Your task to perform on an android device: Search for the best coffee tables on Crate & Barrel Image 0: 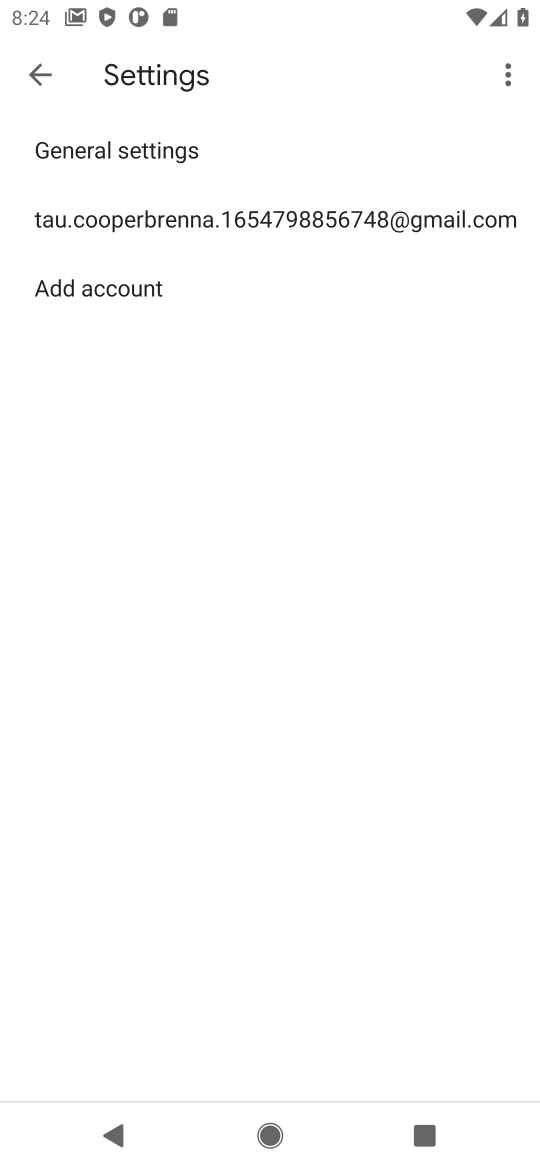
Step 0: press back button
Your task to perform on an android device: Search for the best coffee tables on Crate & Barrel Image 1: 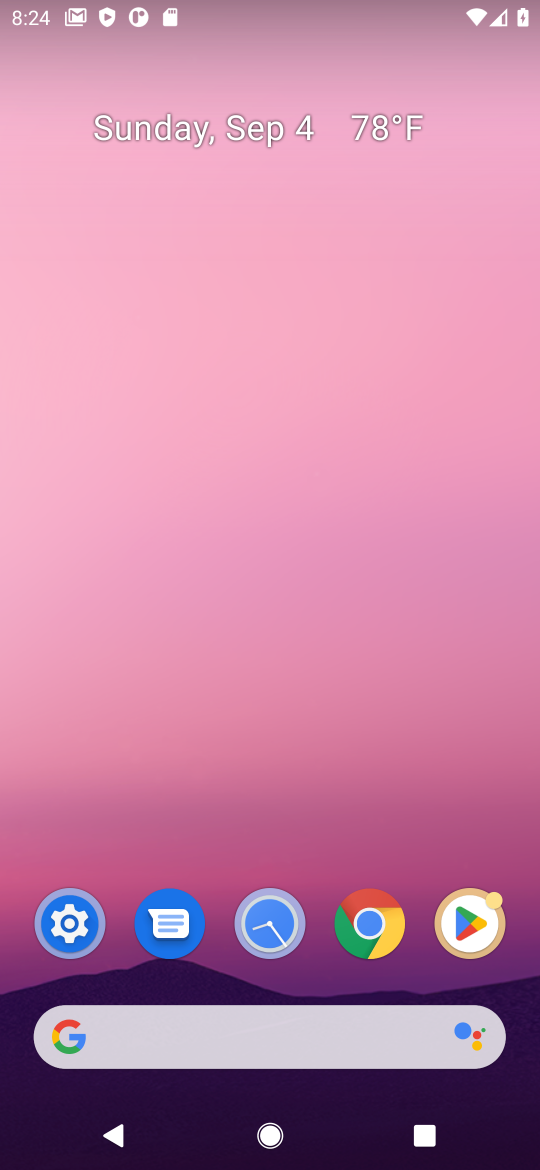
Step 1: click (376, 936)
Your task to perform on an android device: Search for the best coffee tables on Crate & Barrel Image 2: 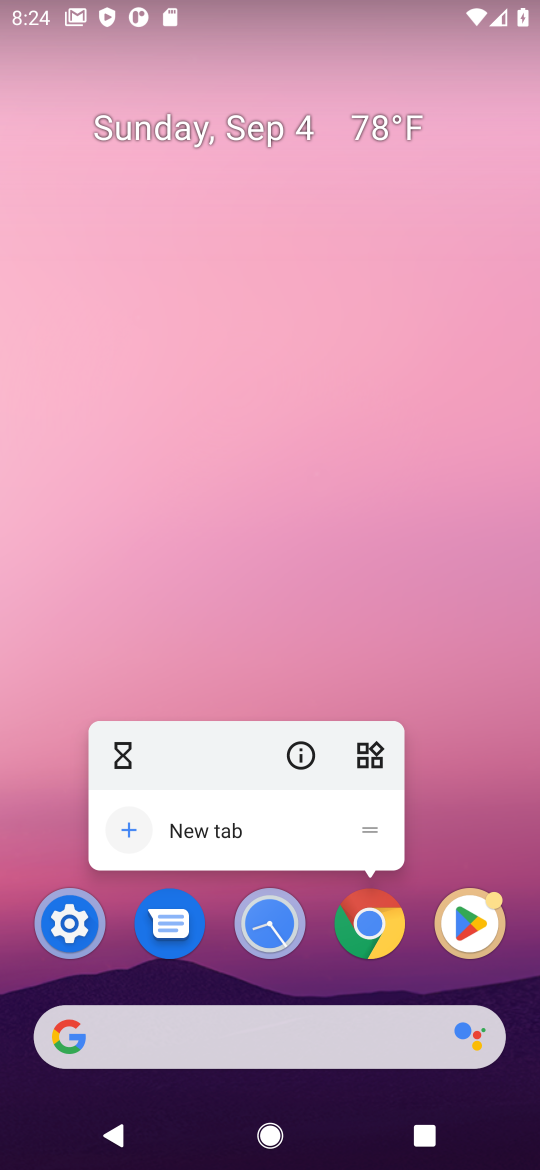
Step 2: click (366, 920)
Your task to perform on an android device: Search for the best coffee tables on Crate & Barrel Image 3: 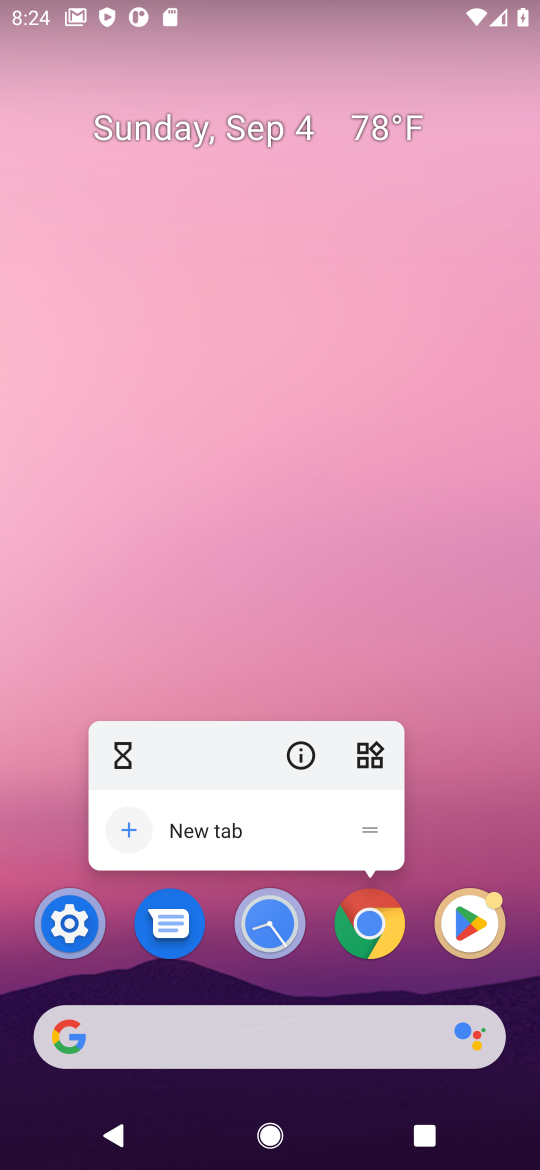
Step 3: click (374, 938)
Your task to perform on an android device: Search for the best coffee tables on Crate & Barrel Image 4: 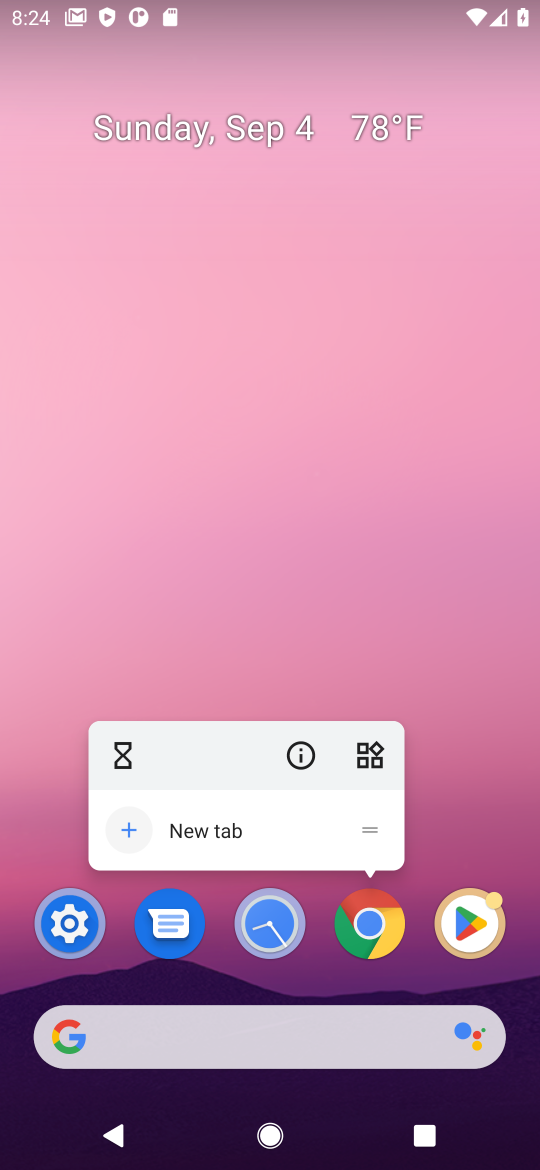
Step 4: click (374, 938)
Your task to perform on an android device: Search for the best coffee tables on Crate & Barrel Image 5: 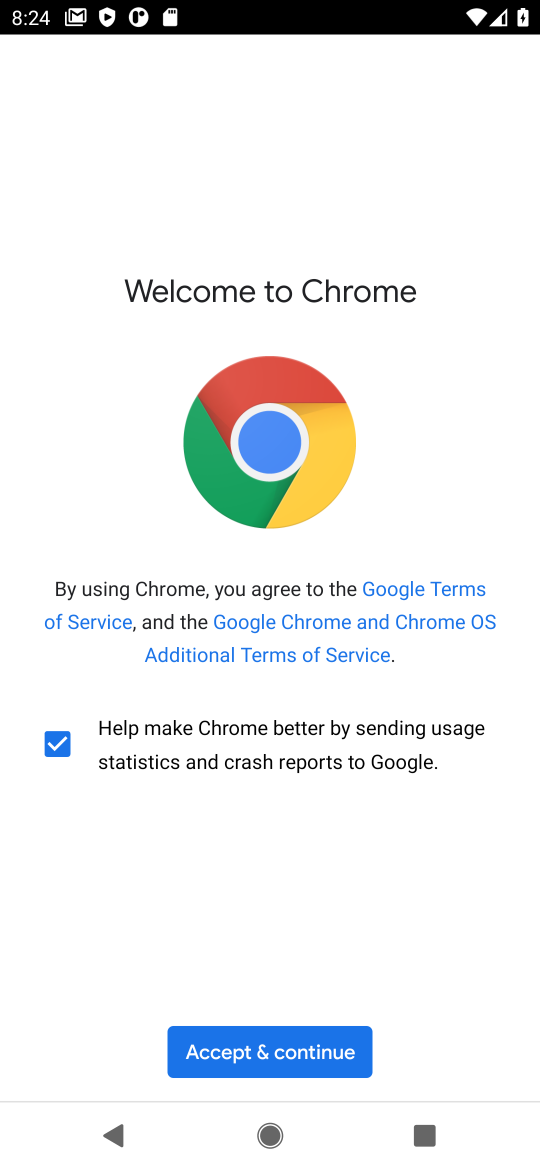
Step 5: click (202, 1064)
Your task to perform on an android device: Search for the best coffee tables on Crate & Barrel Image 6: 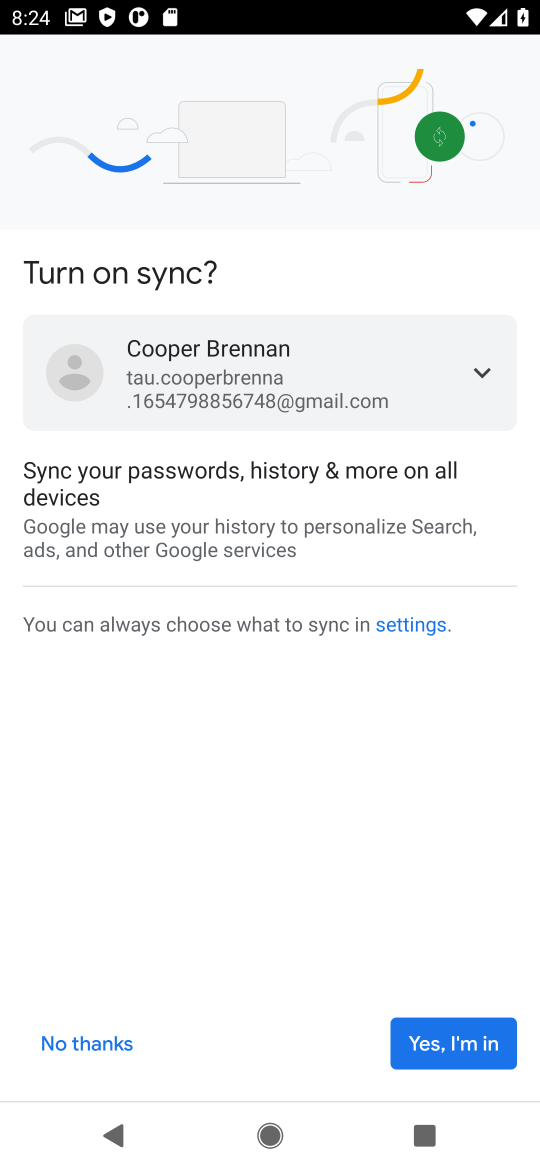
Step 6: click (97, 1042)
Your task to perform on an android device: Search for the best coffee tables on Crate & Barrel Image 7: 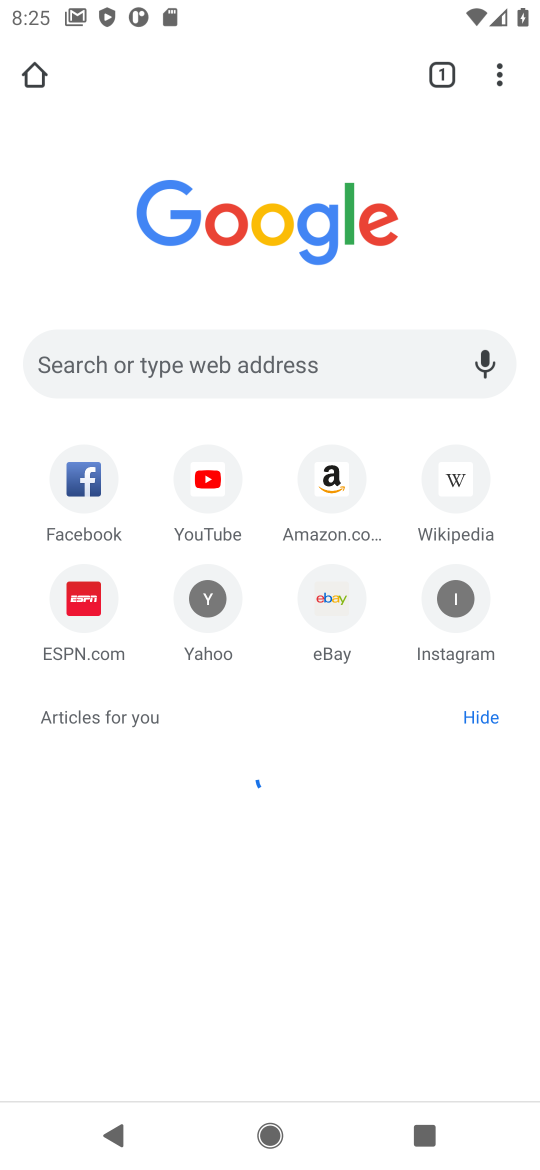
Step 7: click (149, 373)
Your task to perform on an android device: Search for the best coffee tables on Crate & Barrel Image 8: 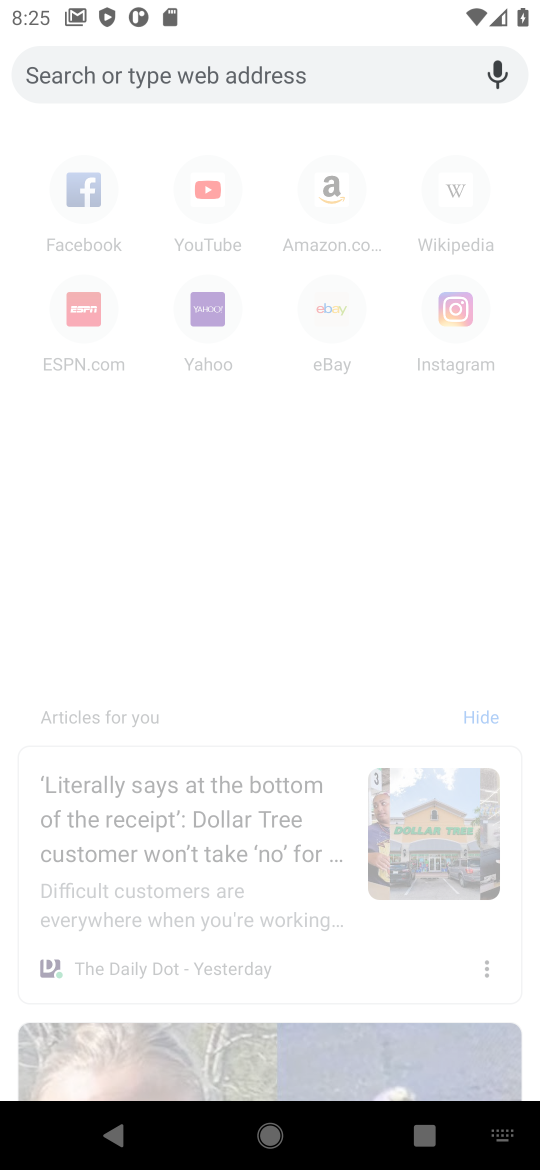
Step 8: type "best coffee tables on Crate & Barrel"
Your task to perform on an android device: Search for the best coffee tables on Crate & Barrel Image 9: 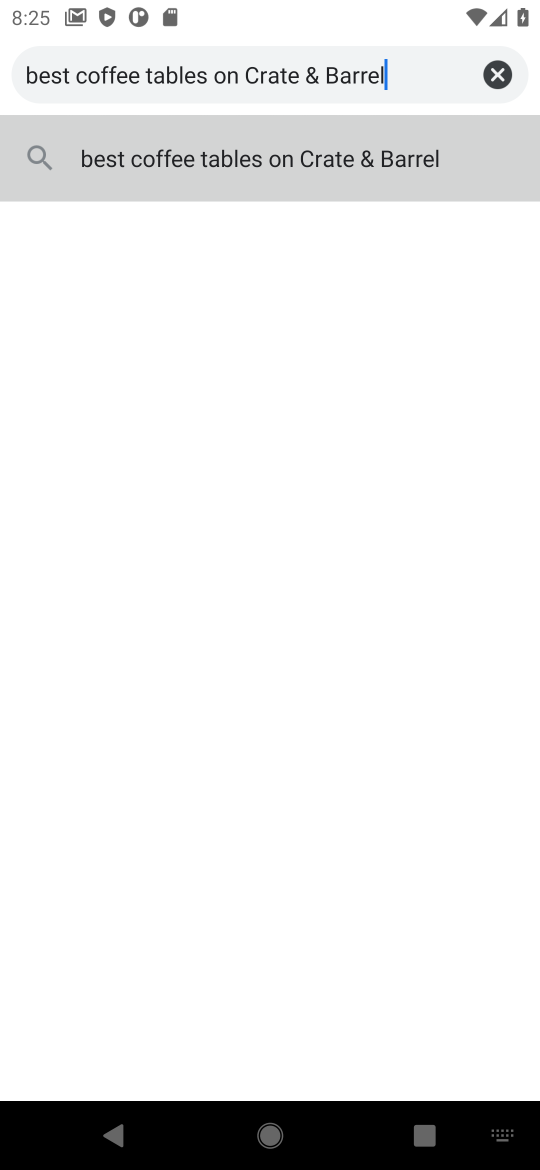
Step 9: click (186, 150)
Your task to perform on an android device: Search for the best coffee tables on Crate & Barrel Image 10: 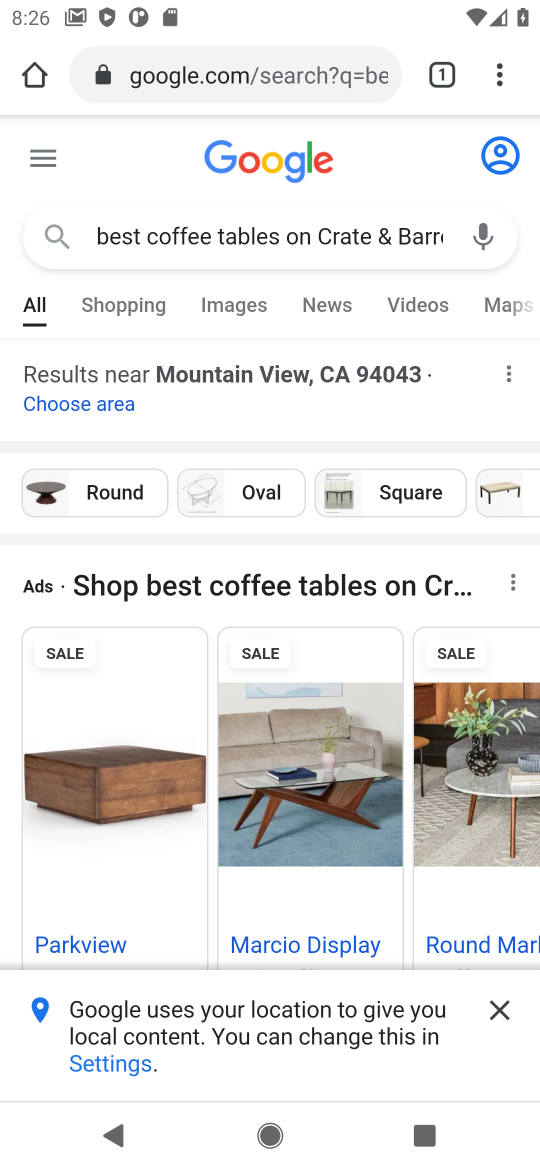
Step 10: task complete